Your task to perform on an android device: Open settings Image 0: 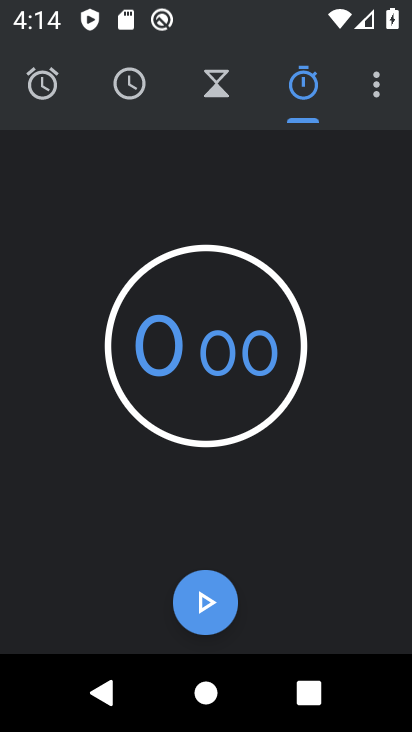
Step 0: press home button
Your task to perform on an android device: Open settings Image 1: 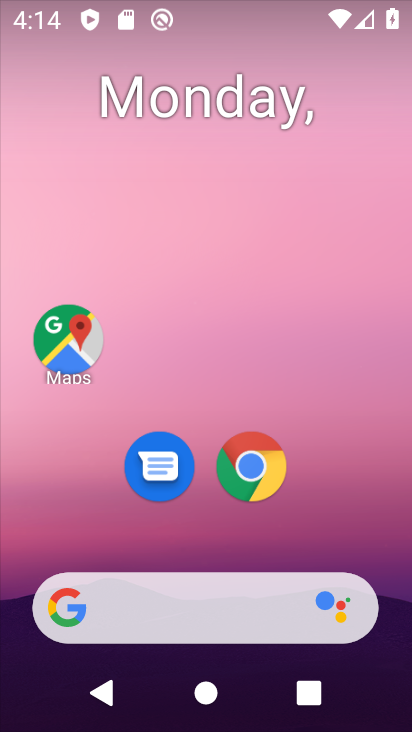
Step 1: drag from (377, 512) to (315, 38)
Your task to perform on an android device: Open settings Image 2: 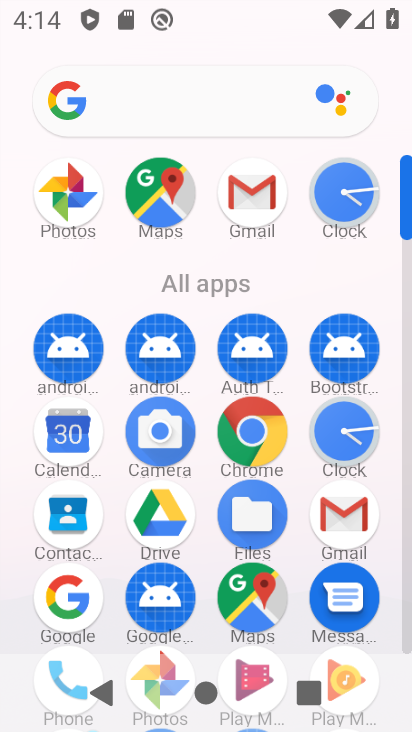
Step 2: drag from (294, 597) to (301, 141)
Your task to perform on an android device: Open settings Image 3: 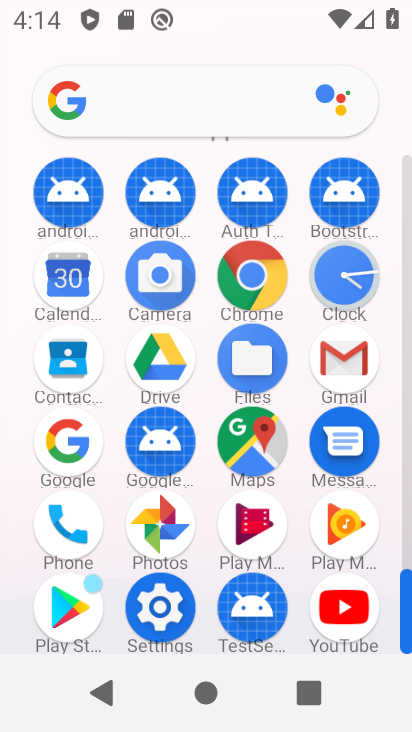
Step 3: click (167, 613)
Your task to perform on an android device: Open settings Image 4: 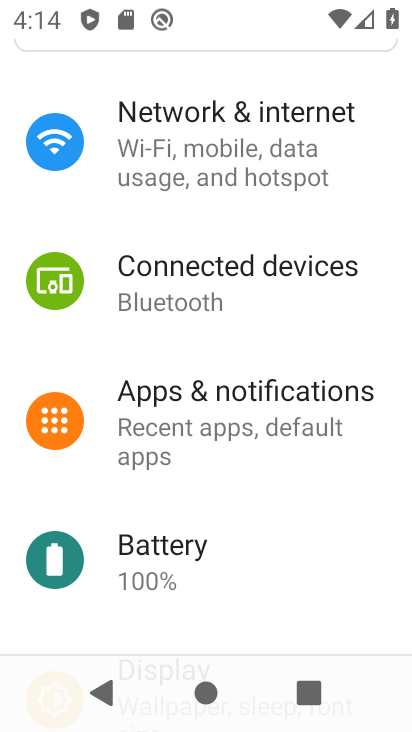
Step 4: task complete